Your task to perform on an android device: snooze an email in the gmail app Image 0: 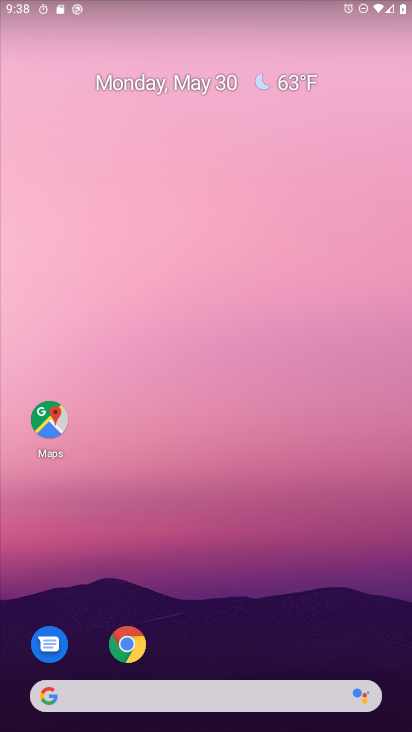
Step 0: drag from (204, 631) to (228, 66)
Your task to perform on an android device: snooze an email in the gmail app Image 1: 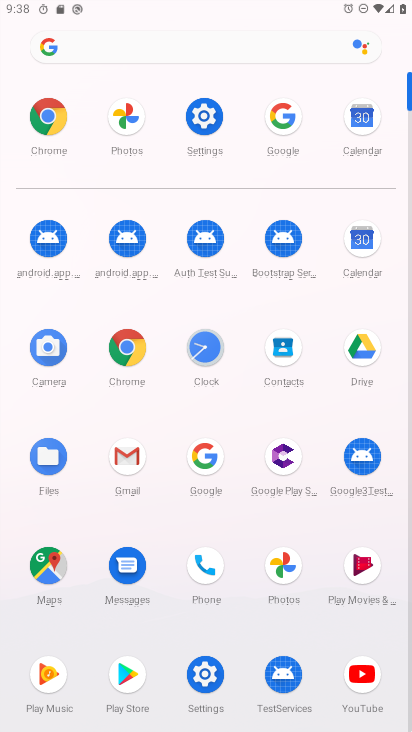
Step 1: click (127, 457)
Your task to perform on an android device: snooze an email in the gmail app Image 2: 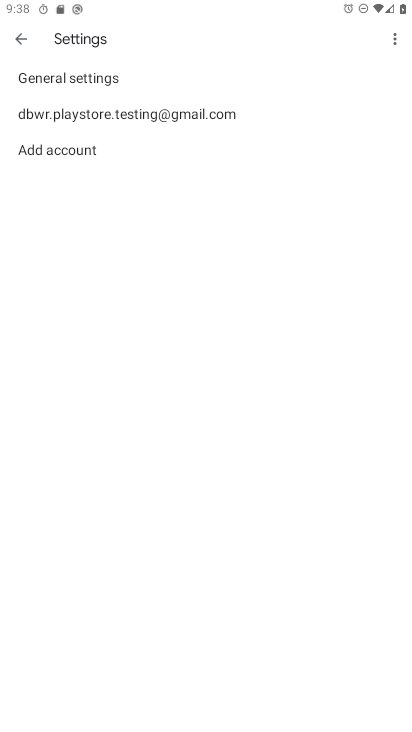
Step 2: press back button
Your task to perform on an android device: snooze an email in the gmail app Image 3: 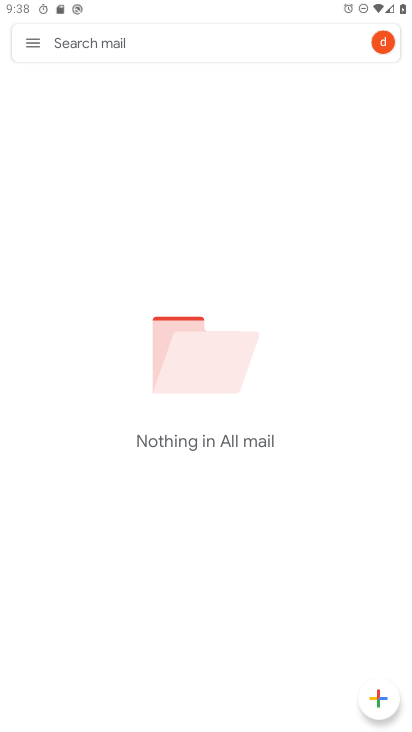
Step 3: click (32, 43)
Your task to perform on an android device: snooze an email in the gmail app Image 4: 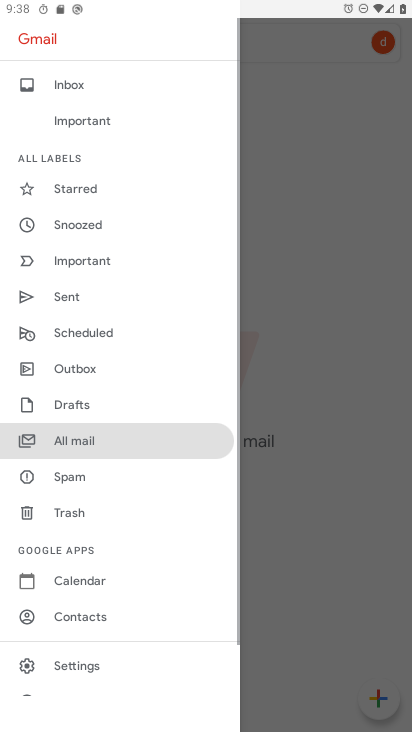
Step 4: click (312, 354)
Your task to perform on an android device: snooze an email in the gmail app Image 5: 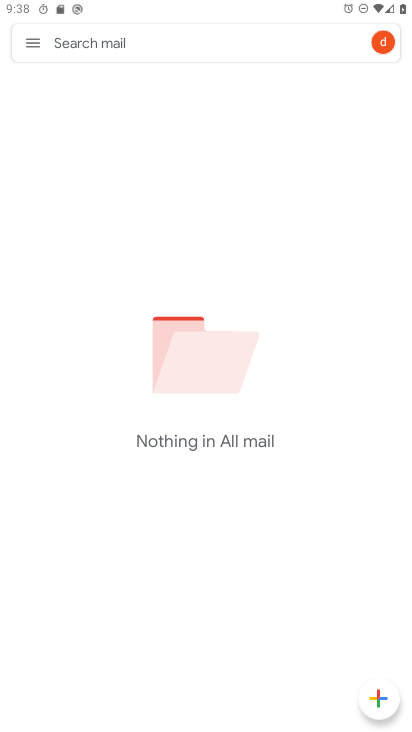
Step 5: task complete